Your task to perform on an android device: Open battery settings Image 0: 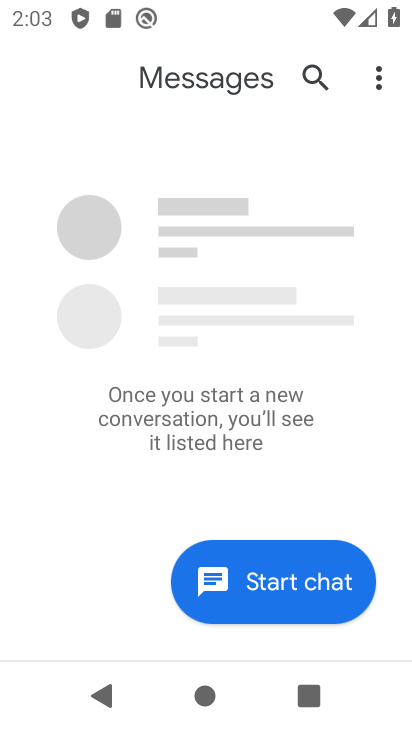
Step 0: press home button
Your task to perform on an android device: Open battery settings Image 1: 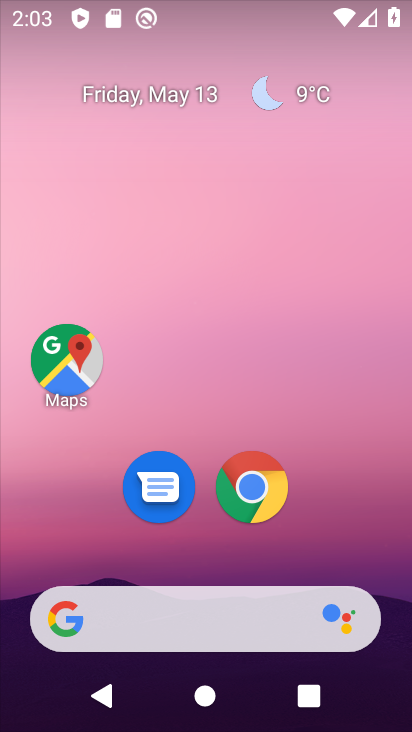
Step 1: drag from (213, 470) to (202, 94)
Your task to perform on an android device: Open battery settings Image 2: 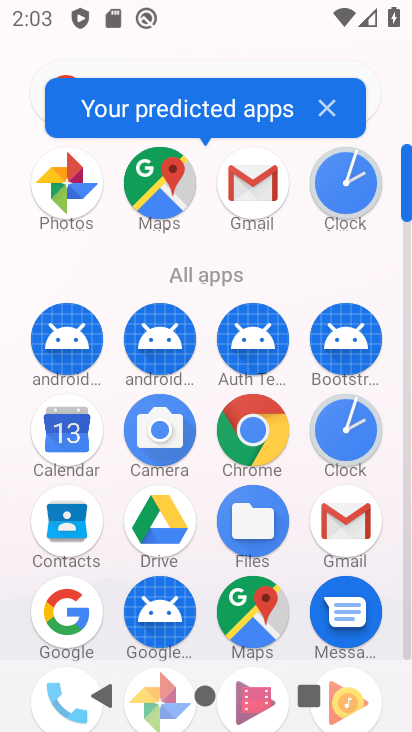
Step 2: drag from (115, 534) to (129, 227)
Your task to perform on an android device: Open battery settings Image 3: 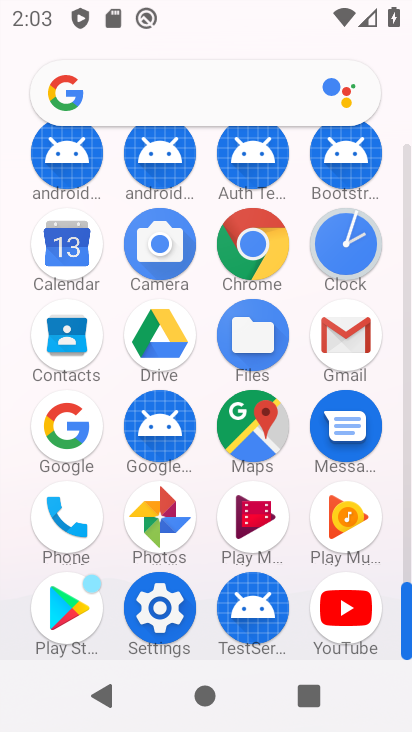
Step 3: click (158, 614)
Your task to perform on an android device: Open battery settings Image 4: 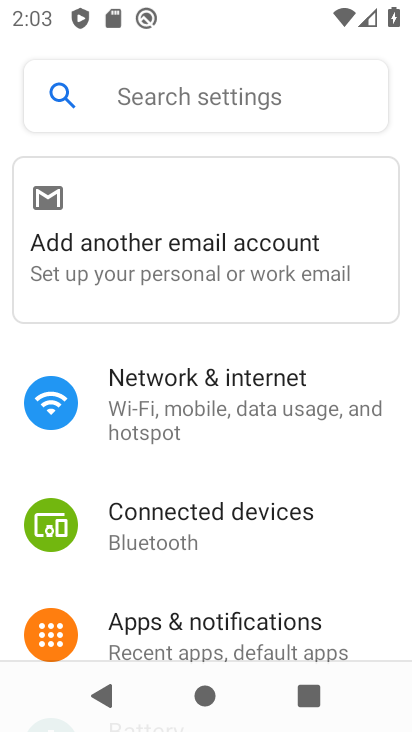
Step 4: drag from (263, 603) to (264, 94)
Your task to perform on an android device: Open battery settings Image 5: 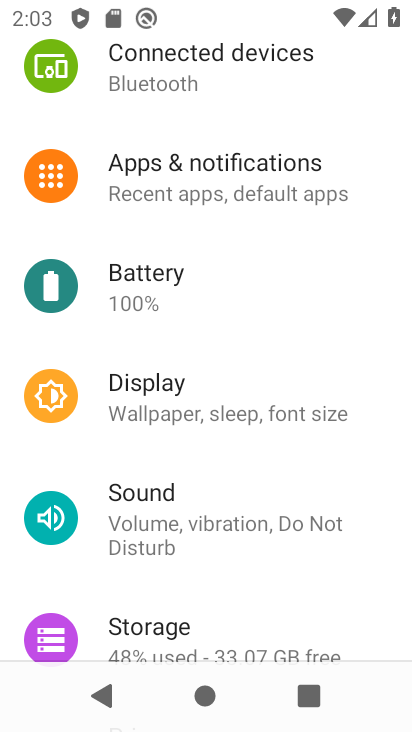
Step 5: click (181, 278)
Your task to perform on an android device: Open battery settings Image 6: 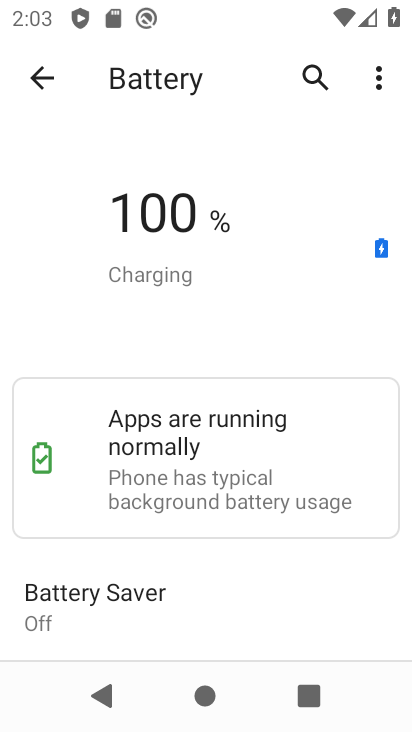
Step 6: task complete